Your task to perform on an android device: change the upload size in google photos Image 0: 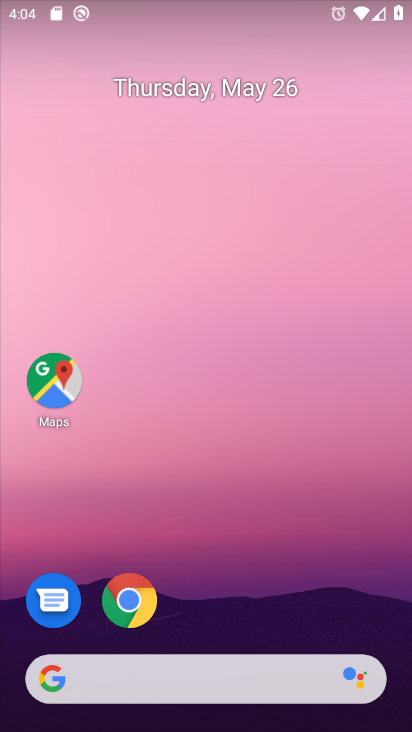
Step 0: drag from (194, 607) to (270, 127)
Your task to perform on an android device: change the upload size in google photos Image 1: 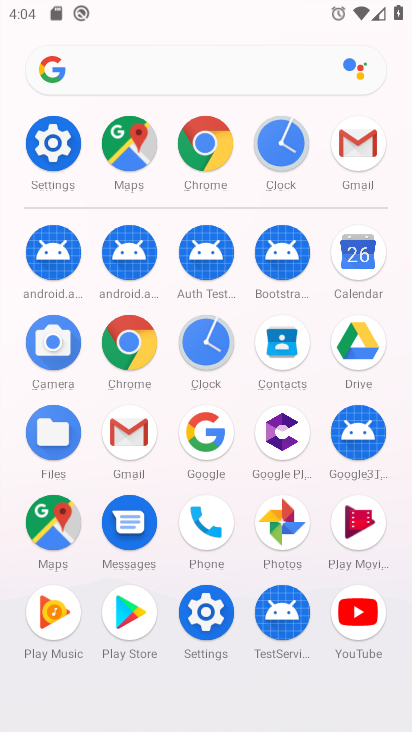
Step 1: click (292, 531)
Your task to perform on an android device: change the upload size in google photos Image 2: 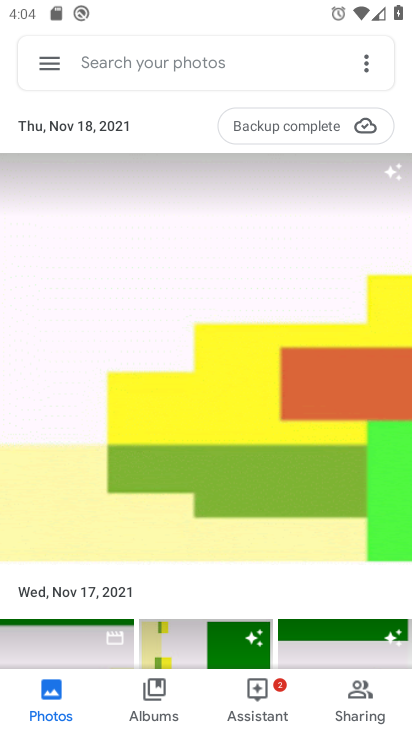
Step 2: click (38, 72)
Your task to perform on an android device: change the upload size in google photos Image 3: 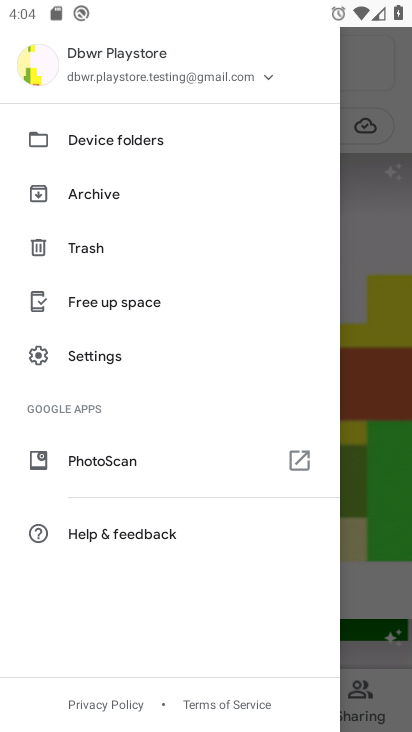
Step 3: click (114, 362)
Your task to perform on an android device: change the upload size in google photos Image 4: 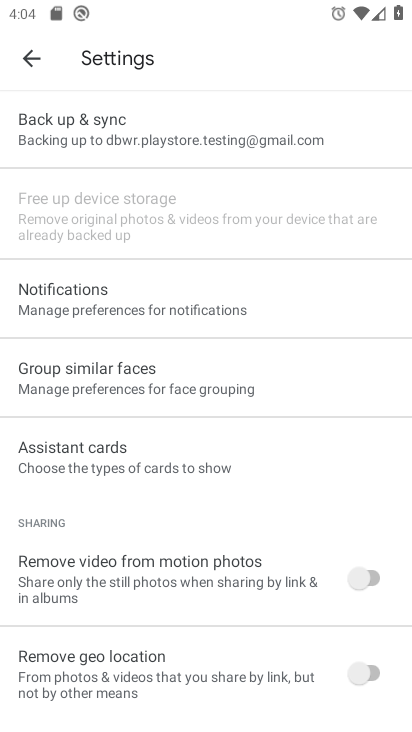
Step 4: click (202, 146)
Your task to perform on an android device: change the upload size in google photos Image 5: 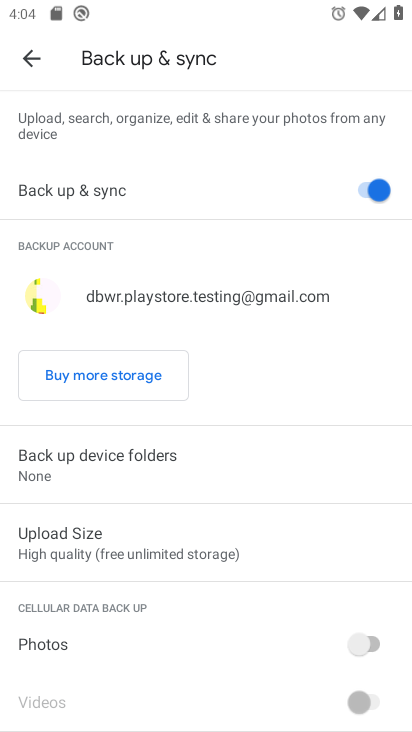
Step 5: click (145, 545)
Your task to perform on an android device: change the upload size in google photos Image 6: 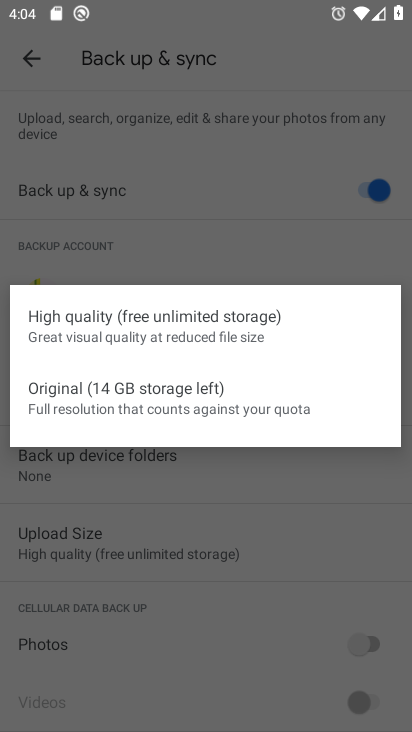
Step 6: click (179, 410)
Your task to perform on an android device: change the upload size in google photos Image 7: 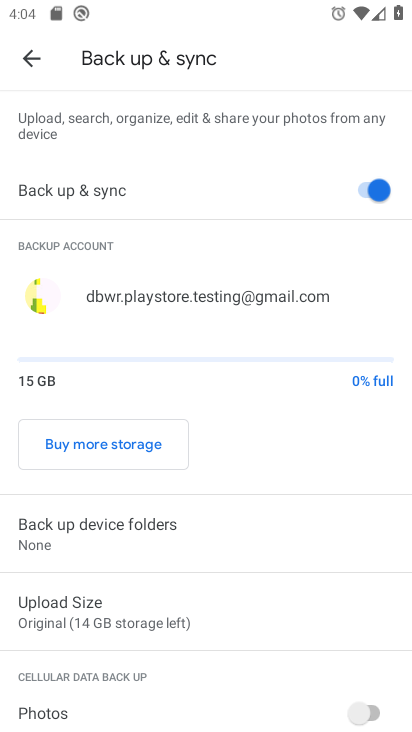
Step 7: task complete